Your task to perform on an android device: manage bookmarks in the chrome app Image 0: 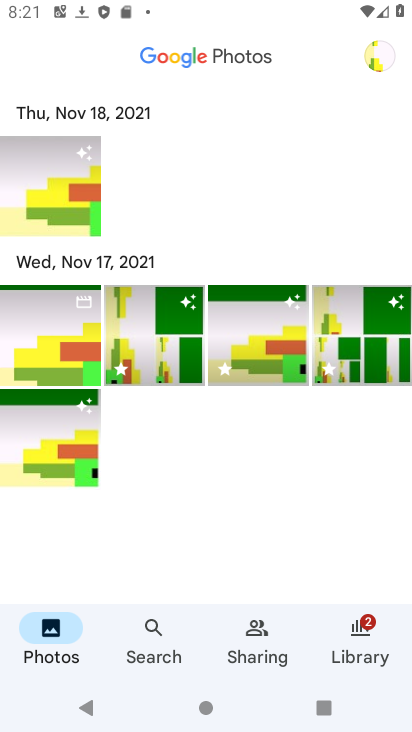
Step 0: press home button
Your task to perform on an android device: manage bookmarks in the chrome app Image 1: 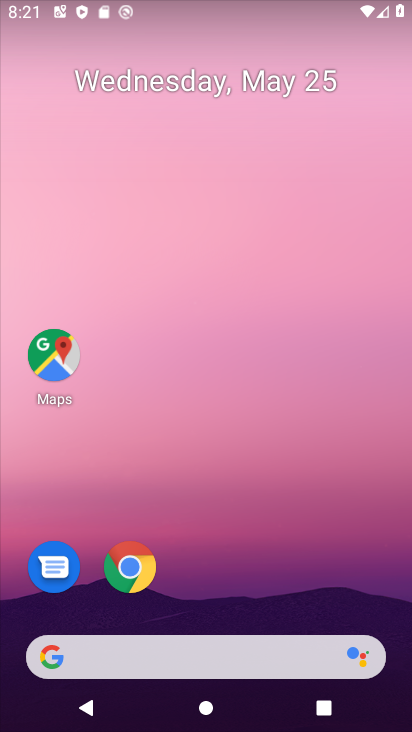
Step 1: click (153, 577)
Your task to perform on an android device: manage bookmarks in the chrome app Image 2: 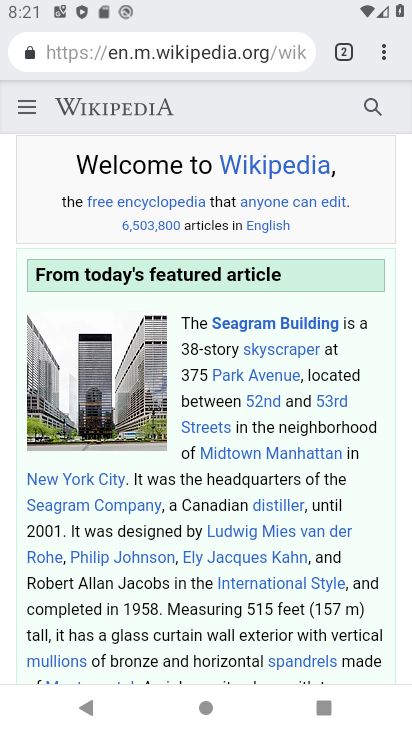
Step 2: click (379, 45)
Your task to perform on an android device: manage bookmarks in the chrome app Image 3: 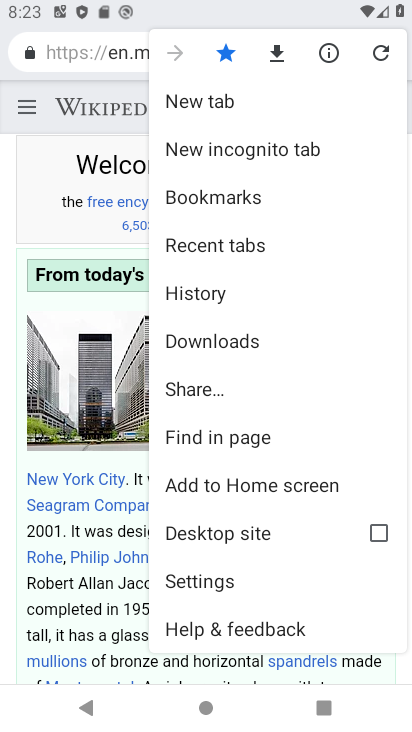
Step 3: click (202, 211)
Your task to perform on an android device: manage bookmarks in the chrome app Image 4: 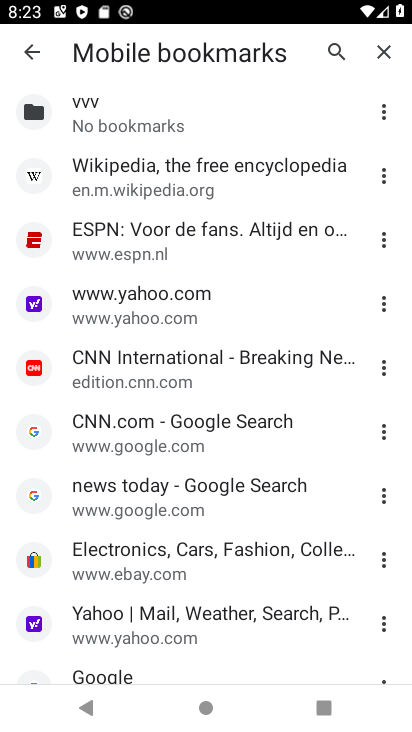
Step 4: click (386, 187)
Your task to perform on an android device: manage bookmarks in the chrome app Image 5: 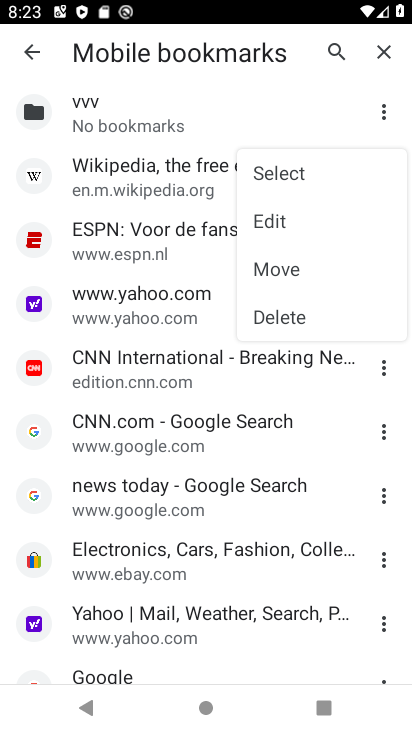
Step 5: click (381, 112)
Your task to perform on an android device: manage bookmarks in the chrome app Image 6: 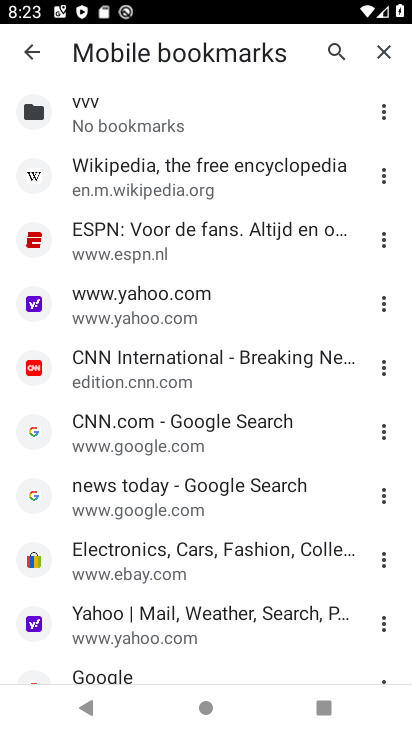
Step 6: click (381, 112)
Your task to perform on an android device: manage bookmarks in the chrome app Image 7: 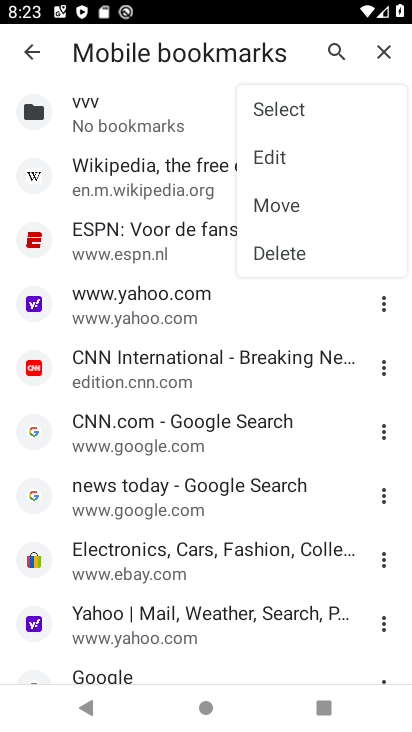
Step 7: click (309, 249)
Your task to perform on an android device: manage bookmarks in the chrome app Image 8: 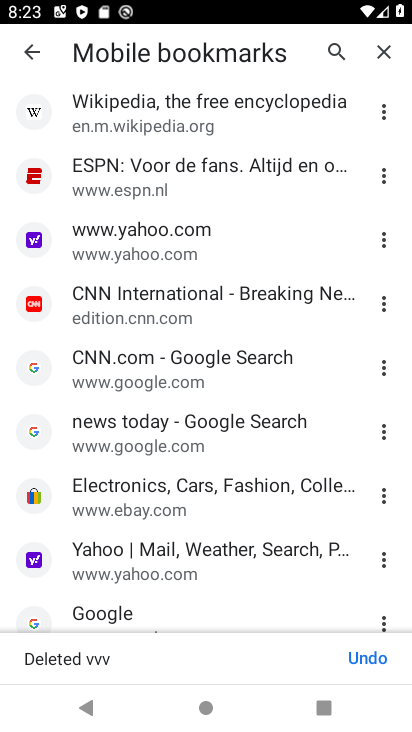
Step 8: task complete